Your task to perform on an android device: open chrome and create a bookmark for the current page Image 0: 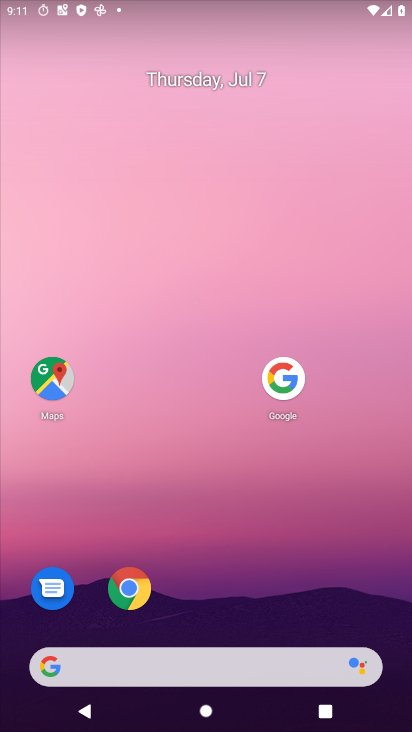
Step 0: click (132, 585)
Your task to perform on an android device: open chrome and create a bookmark for the current page Image 1: 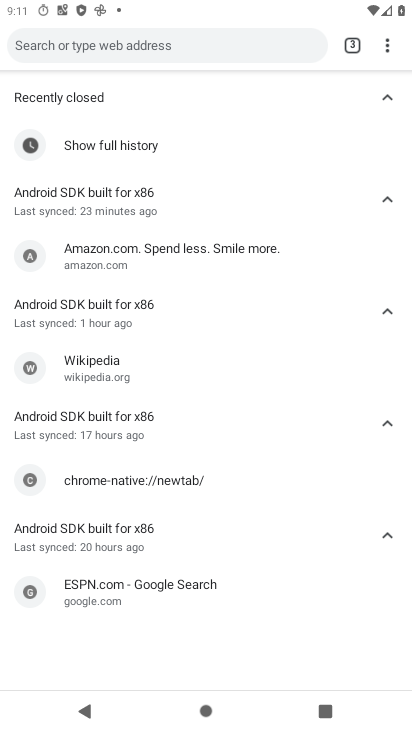
Step 1: click (385, 58)
Your task to perform on an android device: open chrome and create a bookmark for the current page Image 2: 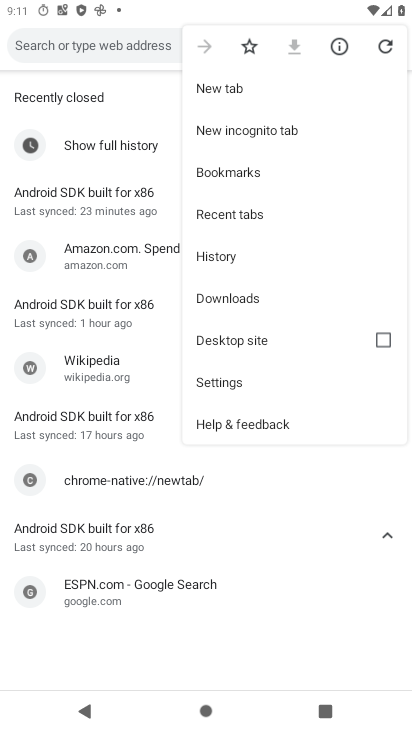
Step 2: click (249, 47)
Your task to perform on an android device: open chrome and create a bookmark for the current page Image 3: 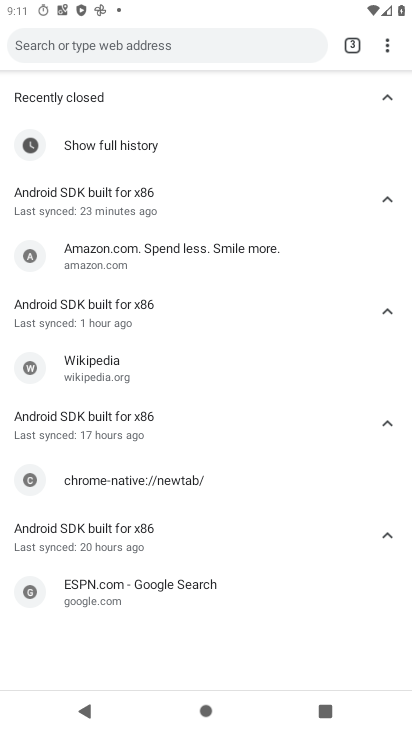
Step 3: task complete